Your task to perform on an android device: Open Google Chrome and click the shortcut for Amazon.com Image 0: 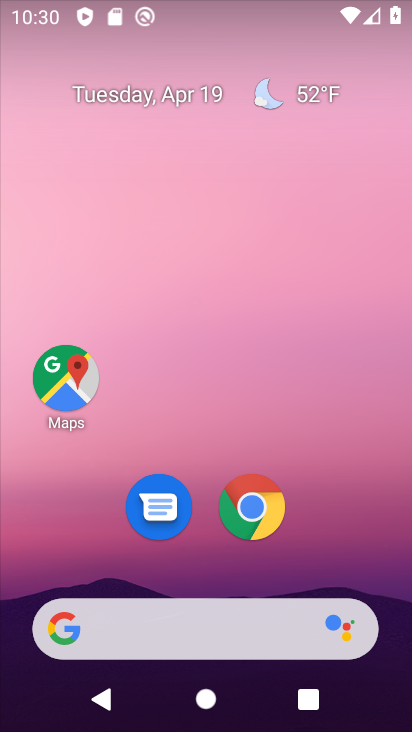
Step 0: drag from (341, 541) to (371, 72)
Your task to perform on an android device: Open Google Chrome and click the shortcut for Amazon.com Image 1: 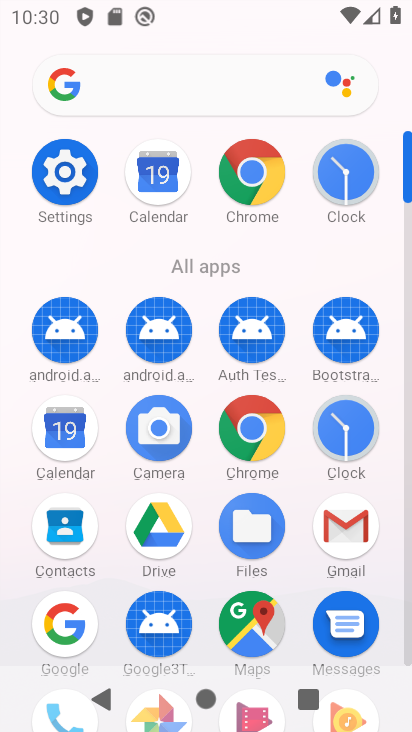
Step 1: click (213, 427)
Your task to perform on an android device: Open Google Chrome and click the shortcut for Amazon.com Image 2: 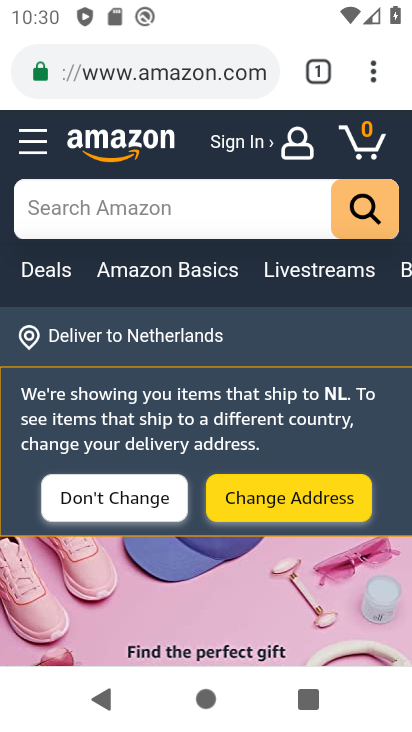
Step 2: task complete